Your task to perform on an android device: turn on wifi Image 0: 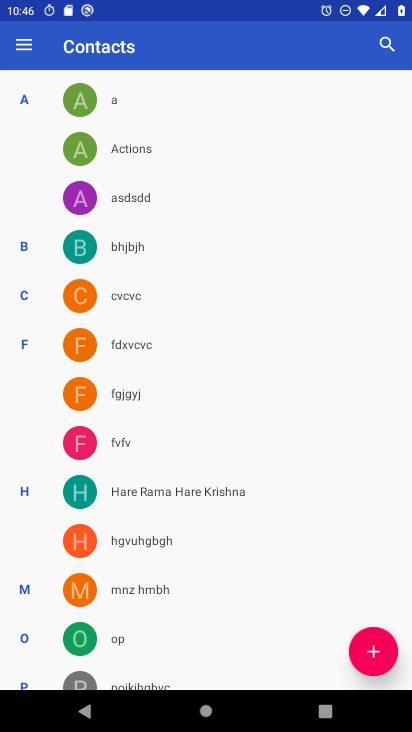
Step 0: press back button
Your task to perform on an android device: turn on wifi Image 1: 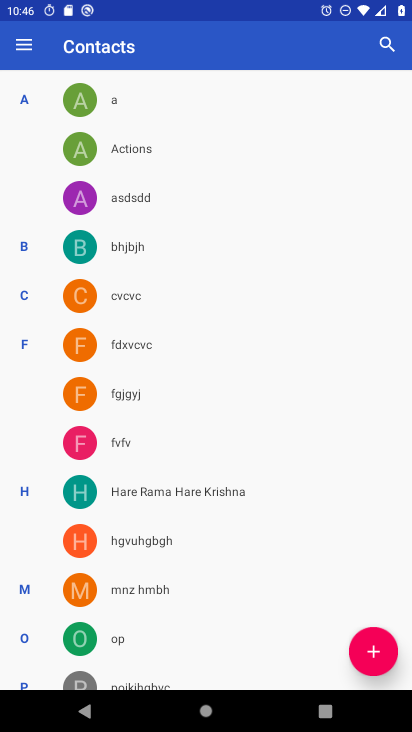
Step 1: press back button
Your task to perform on an android device: turn on wifi Image 2: 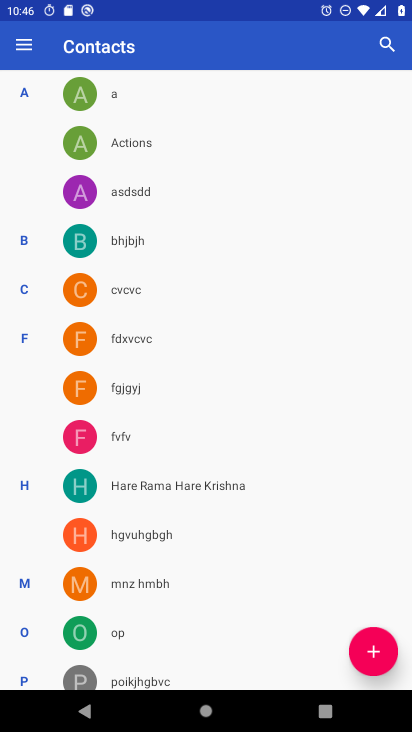
Step 2: press home button
Your task to perform on an android device: turn on wifi Image 3: 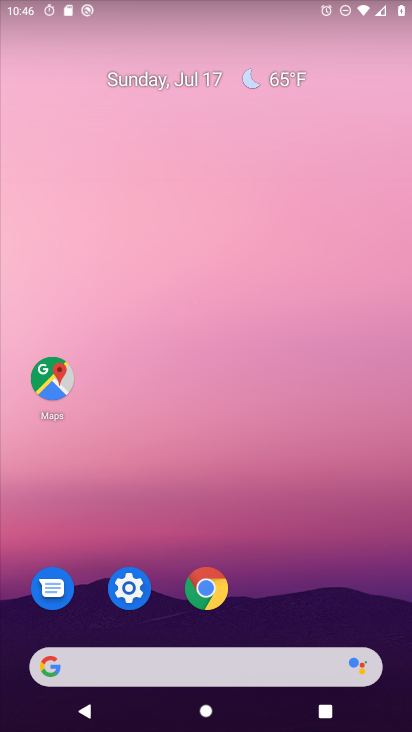
Step 3: drag from (255, 607) to (167, 7)
Your task to perform on an android device: turn on wifi Image 4: 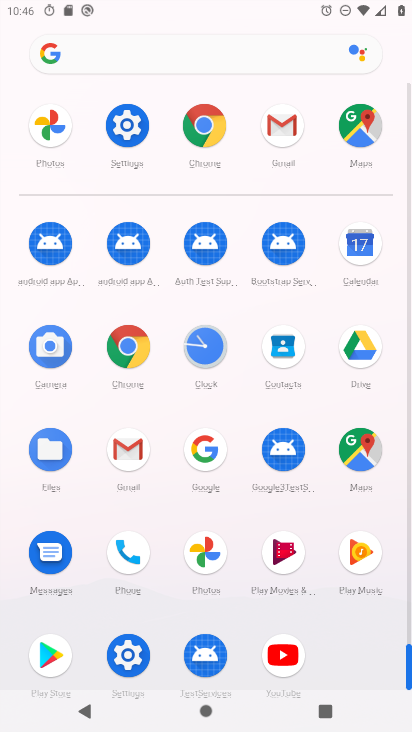
Step 4: click (125, 125)
Your task to perform on an android device: turn on wifi Image 5: 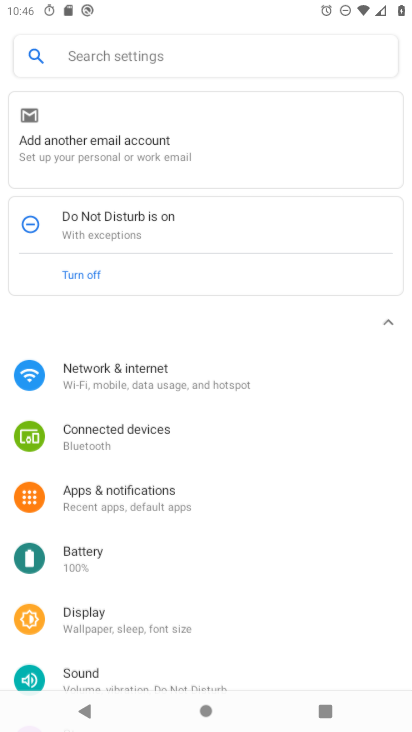
Step 5: click (120, 378)
Your task to perform on an android device: turn on wifi Image 6: 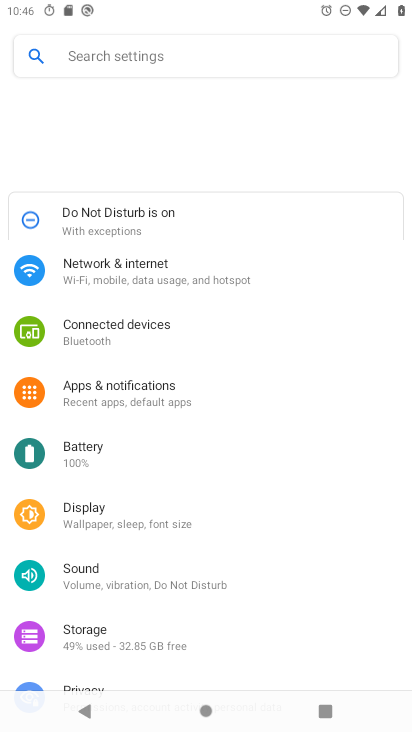
Step 6: click (120, 378)
Your task to perform on an android device: turn on wifi Image 7: 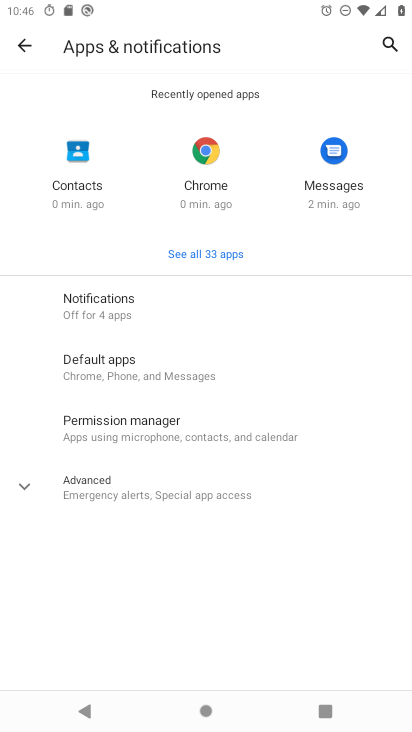
Step 7: click (32, 15)
Your task to perform on an android device: turn on wifi Image 8: 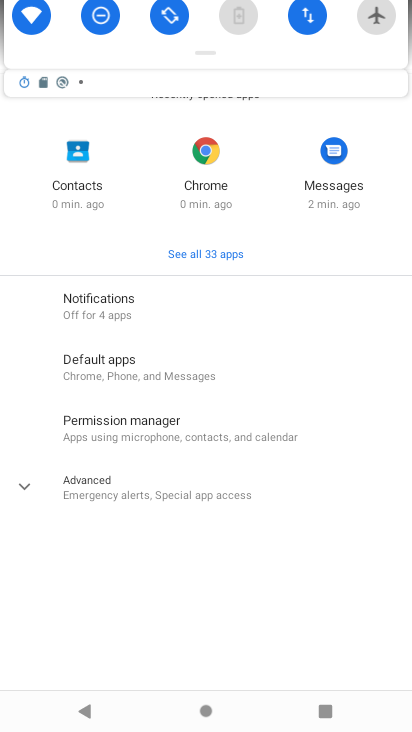
Step 8: click (25, 34)
Your task to perform on an android device: turn on wifi Image 9: 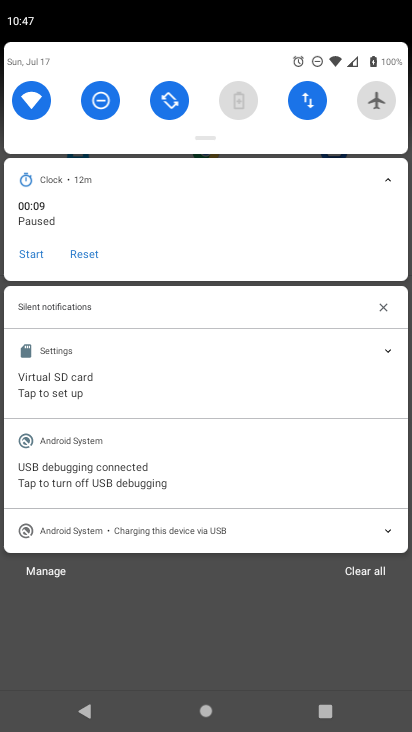
Step 9: drag from (204, 544) to (168, 115)
Your task to perform on an android device: turn on wifi Image 10: 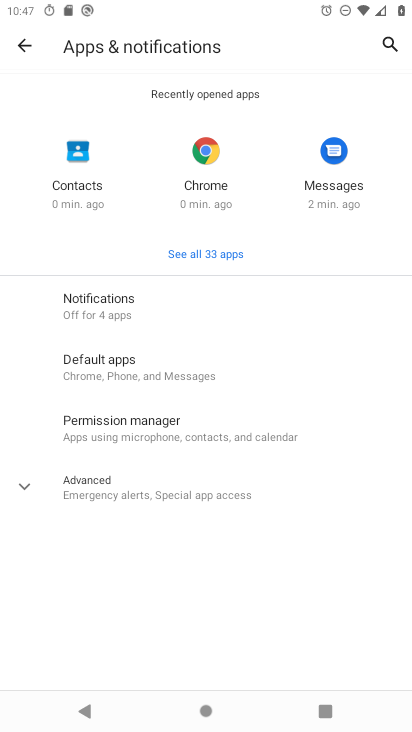
Step 10: drag from (180, 625) to (107, 212)
Your task to perform on an android device: turn on wifi Image 11: 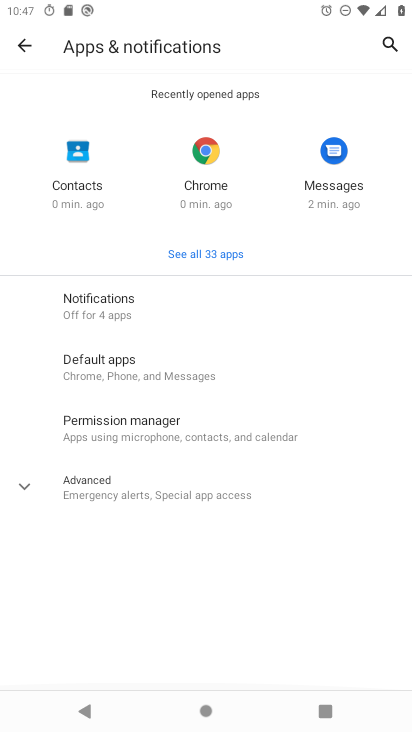
Step 11: click (108, 310)
Your task to perform on an android device: turn on wifi Image 12: 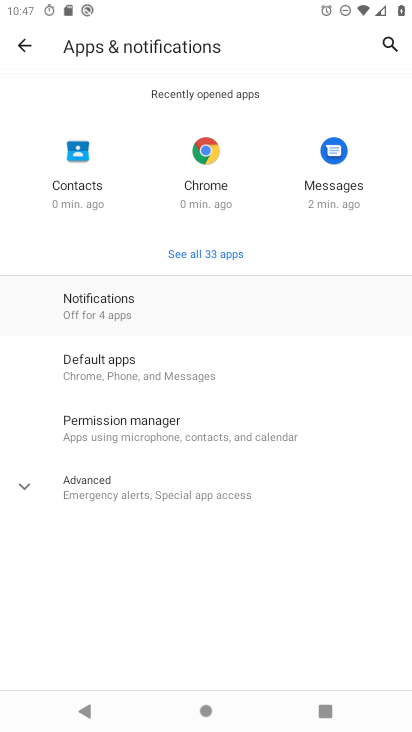
Step 12: click (107, 311)
Your task to perform on an android device: turn on wifi Image 13: 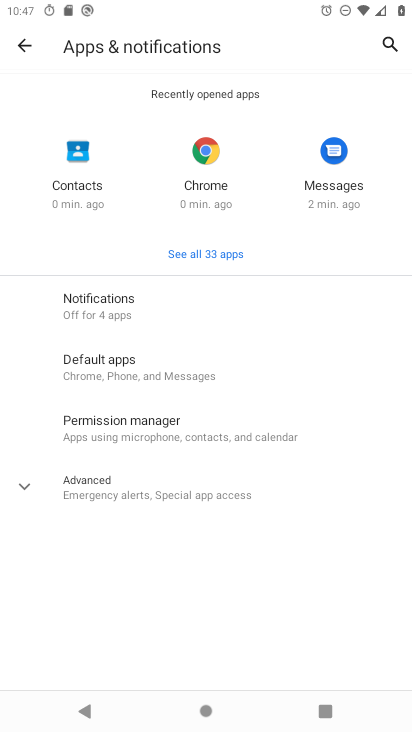
Step 13: click (107, 320)
Your task to perform on an android device: turn on wifi Image 14: 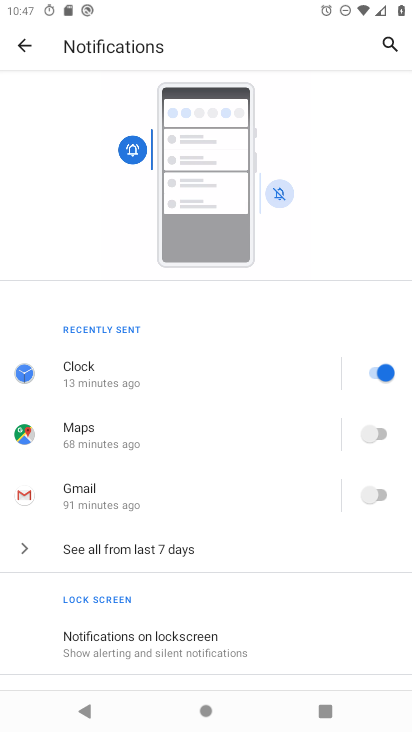
Step 14: click (22, 49)
Your task to perform on an android device: turn on wifi Image 15: 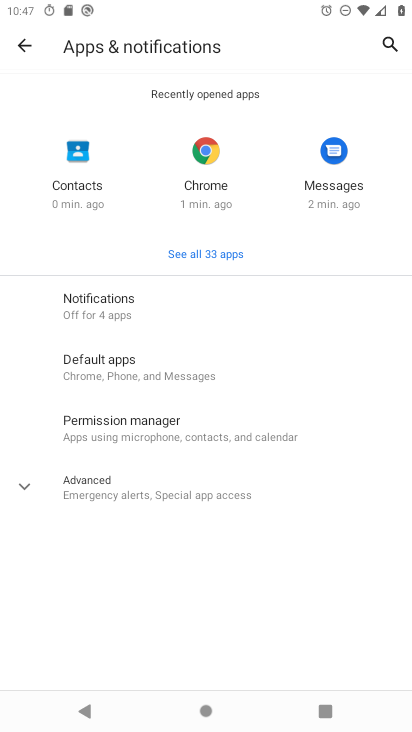
Step 15: click (28, 58)
Your task to perform on an android device: turn on wifi Image 16: 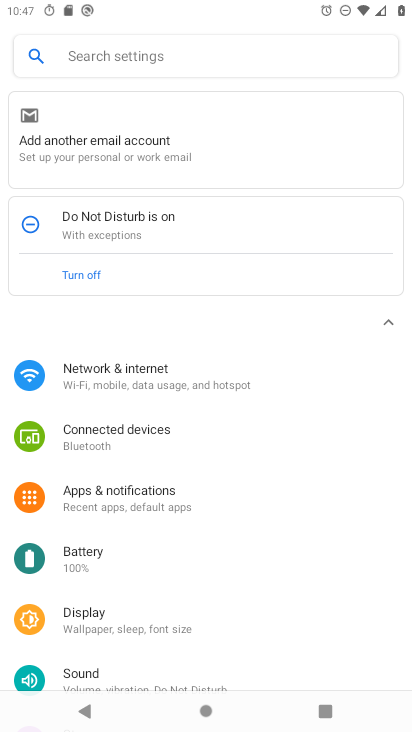
Step 16: click (128, 261)
Your task to perform on an android device: turn on wifi Image 17: 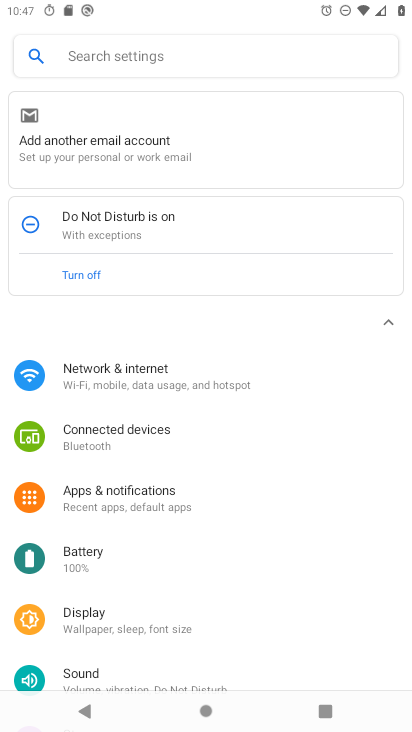
Step 17: click (124, 387)
Your task to perform on an android device: turn on wifi Image 18: 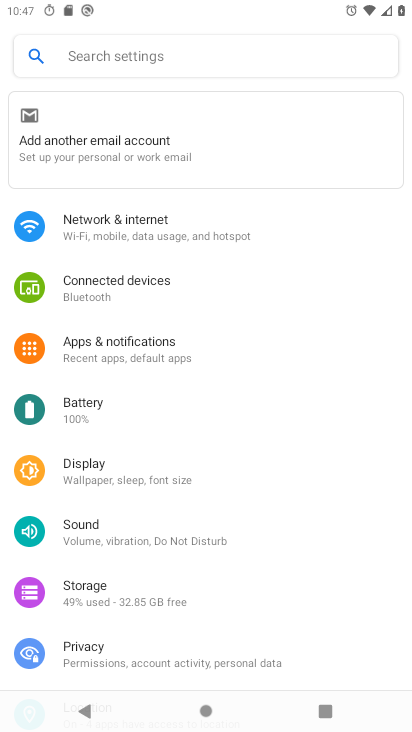
Step 18: click (138, 226)
Your task to perform on an android device: turn on wifi Image 19: 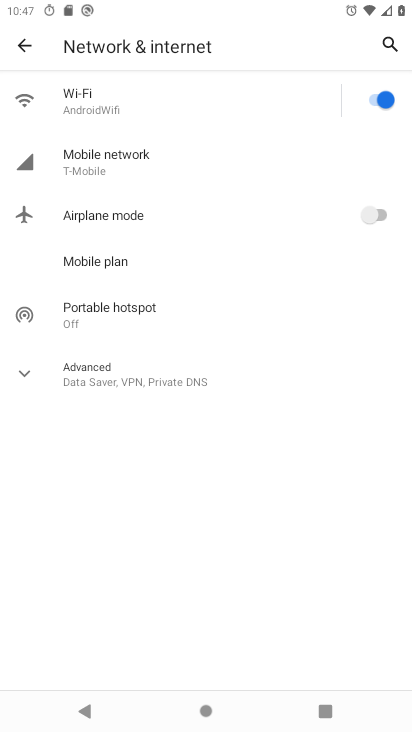
Step 19: task complete